Your task to perform on an android device: empty trash in google photos Image 0: 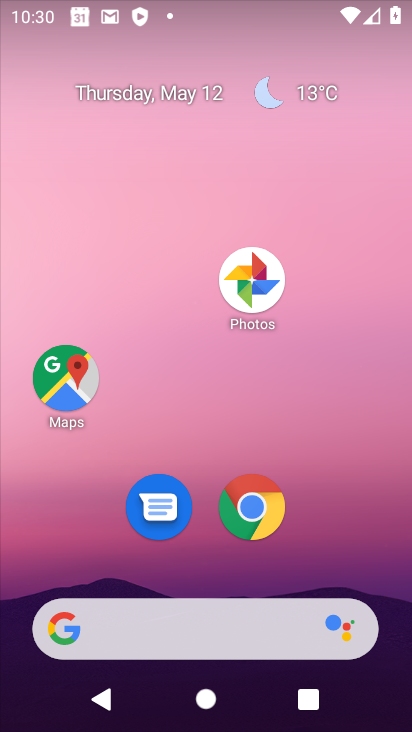
Step 0: drag from (358, 539) to (269, 13)
Your task to perform on an android device: empty trash in google photos Image 1: 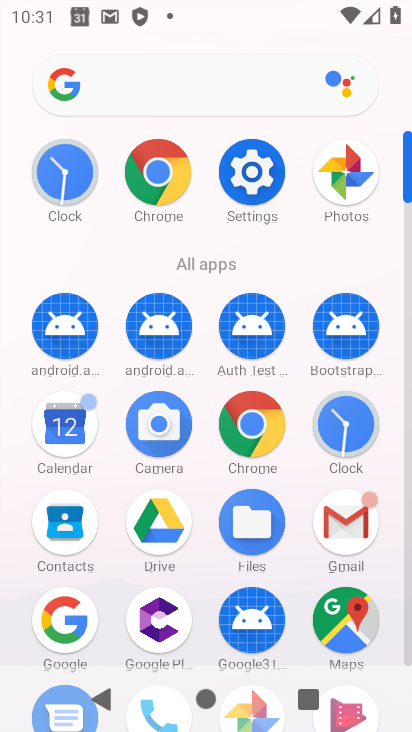
Step 1: drag from (108, 626) to (111, 276)
Your task to perform on an android device: empty trash in google photos Image 2: 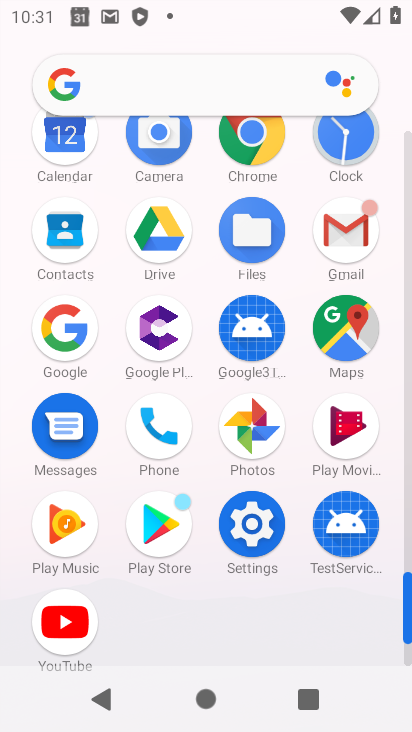
Step 2: click (280, 423)
Your task to perform on an android device: empty trash in google photos Image 3: 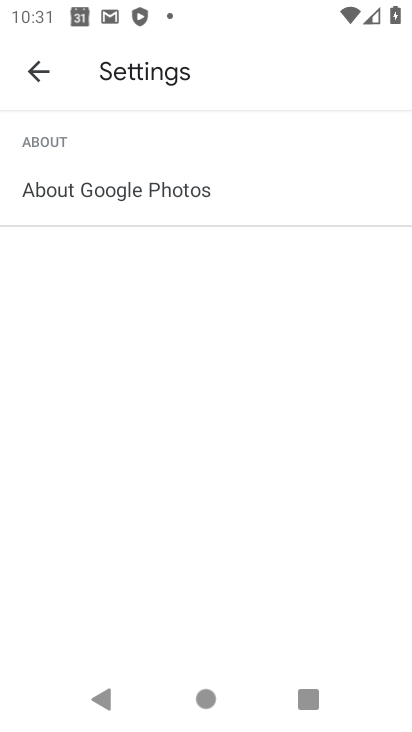
Step 3: click (34, 73)
Your task to perform on an android device: empty trash in google photos Image 4: 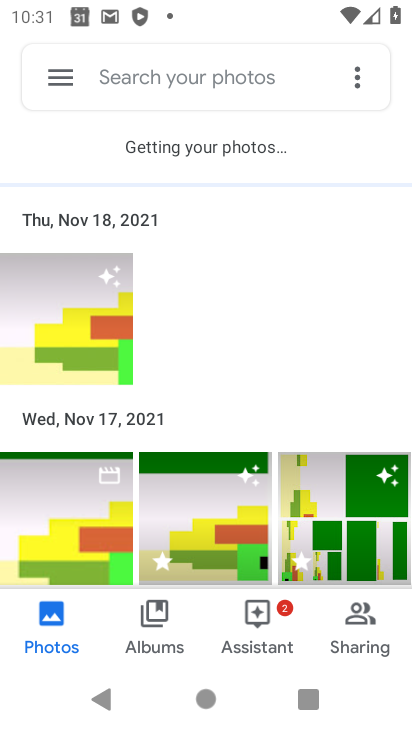
Step 4: click (48, 83)
Your task to perform on an android device: empty trash in google photos Image 5: 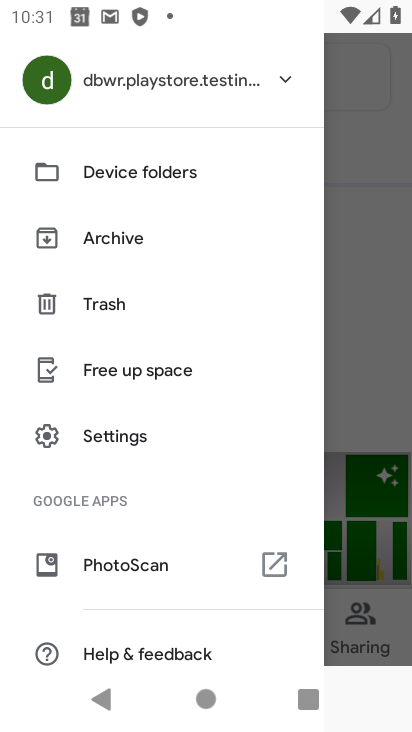
Step 5: drag from (69, 474) to (52, 197)
Your task to perform on an android device: empty trash in google photos Image 6: 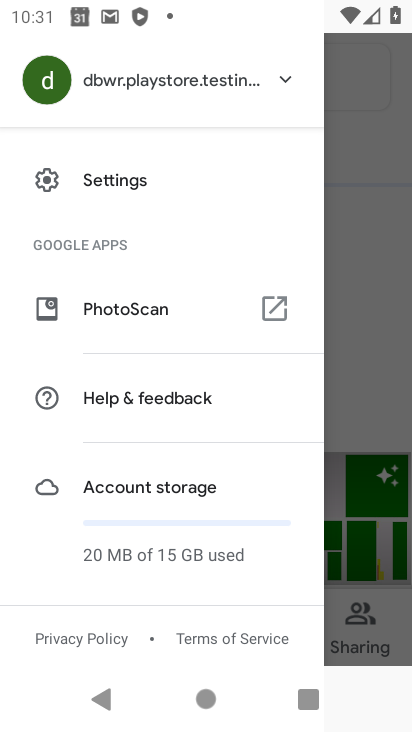
Step 6: drag from (136, 596) to (112, 420)
Your task to perform on an android device: empty trash in google photos Image 7: 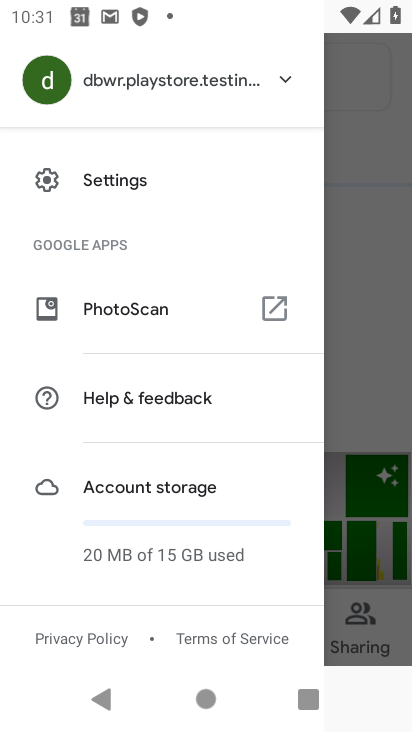
Step 7: click (116, 178)
Your task to perform on an android device: empty trash in google photos Image 8: 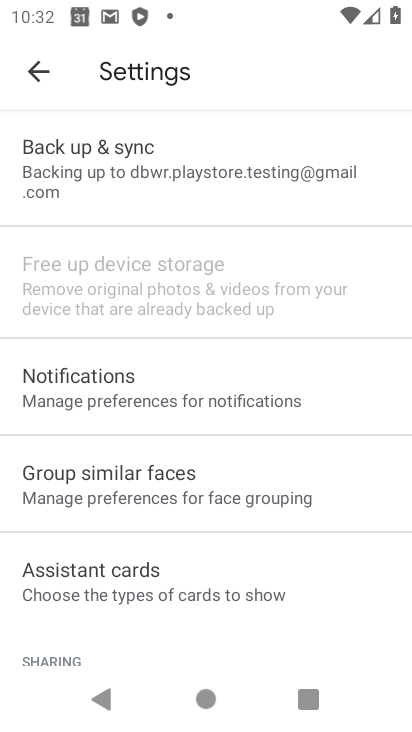
Step 8: click (38, 54)
Your task to perform on an android device: empty trash in google photos Image 9: 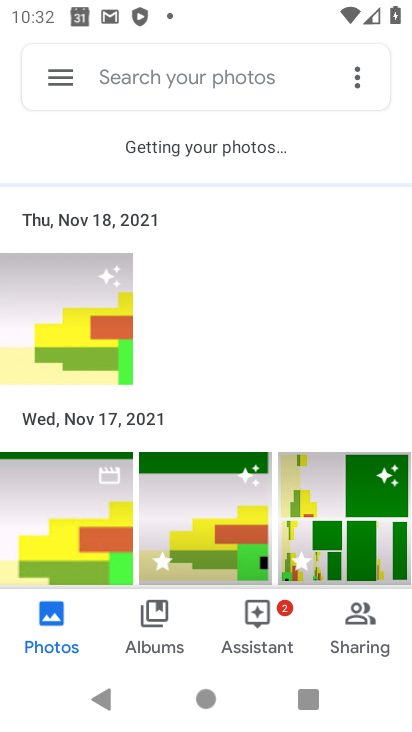
Step 9: click (64, 70)
Your task to perform on an android device: empty trash in google photos Image 10: 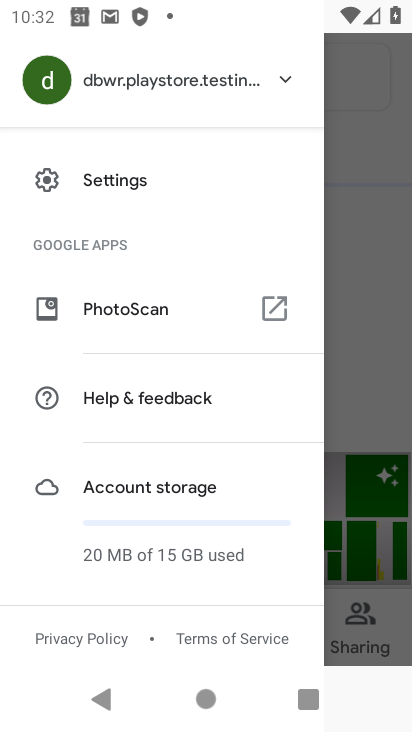
Step 10: drag from (113, 224) to (2, 641)
Your task to perform on an android device: empty trash in google photos Image 11: 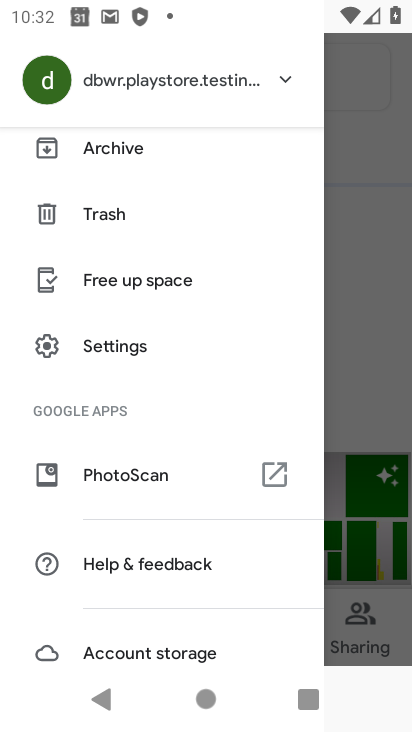
Step 11: click (77, 205)
Your task to perform on an android device: empty trash in google photos Image 12: 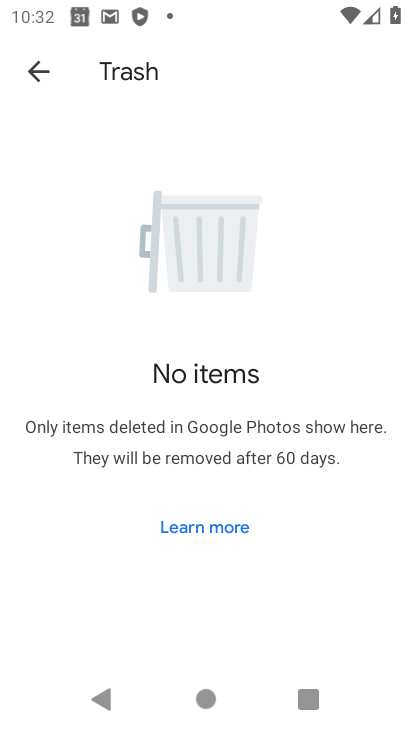
Step 12: task complete